Your task to perform on an android device: Open display settings Image 0: 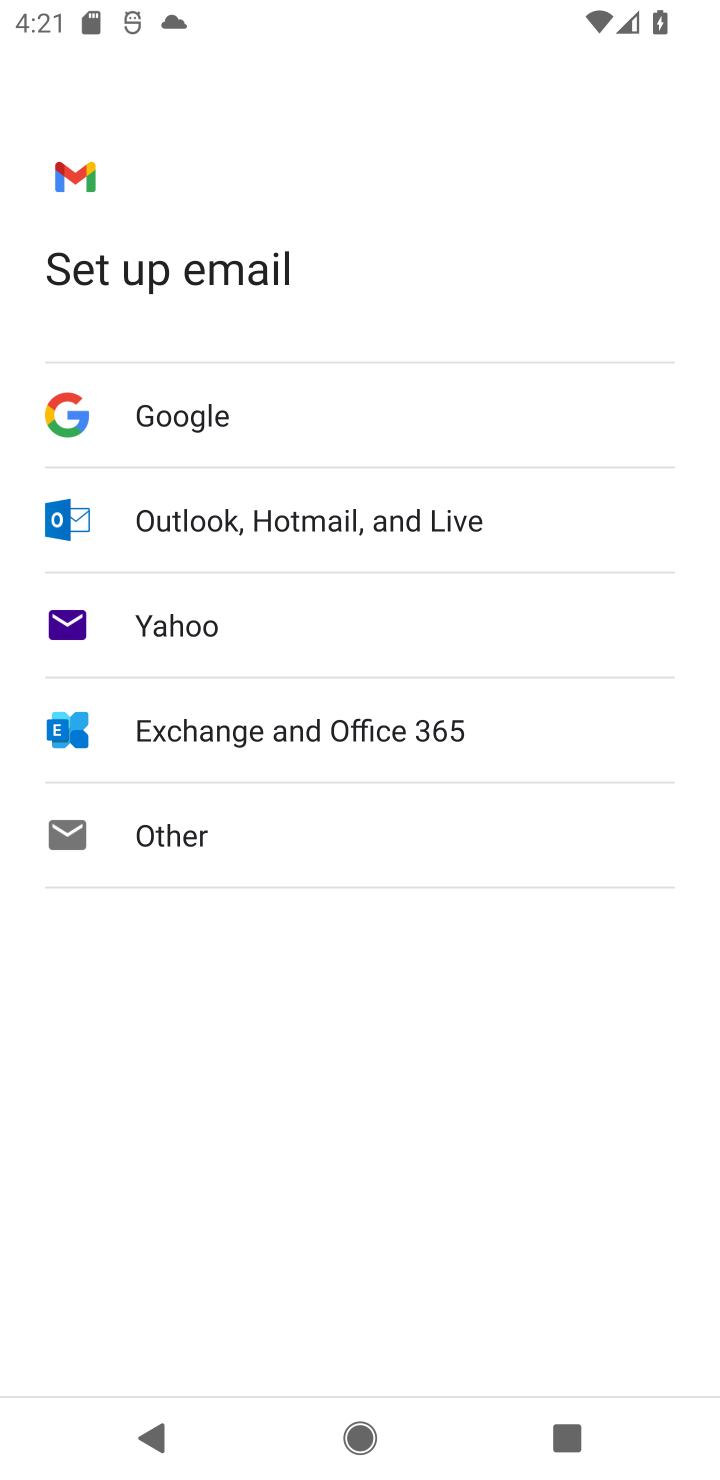
Step 0: press back button
Your task to perform on an android device: Open display settings Image 1: 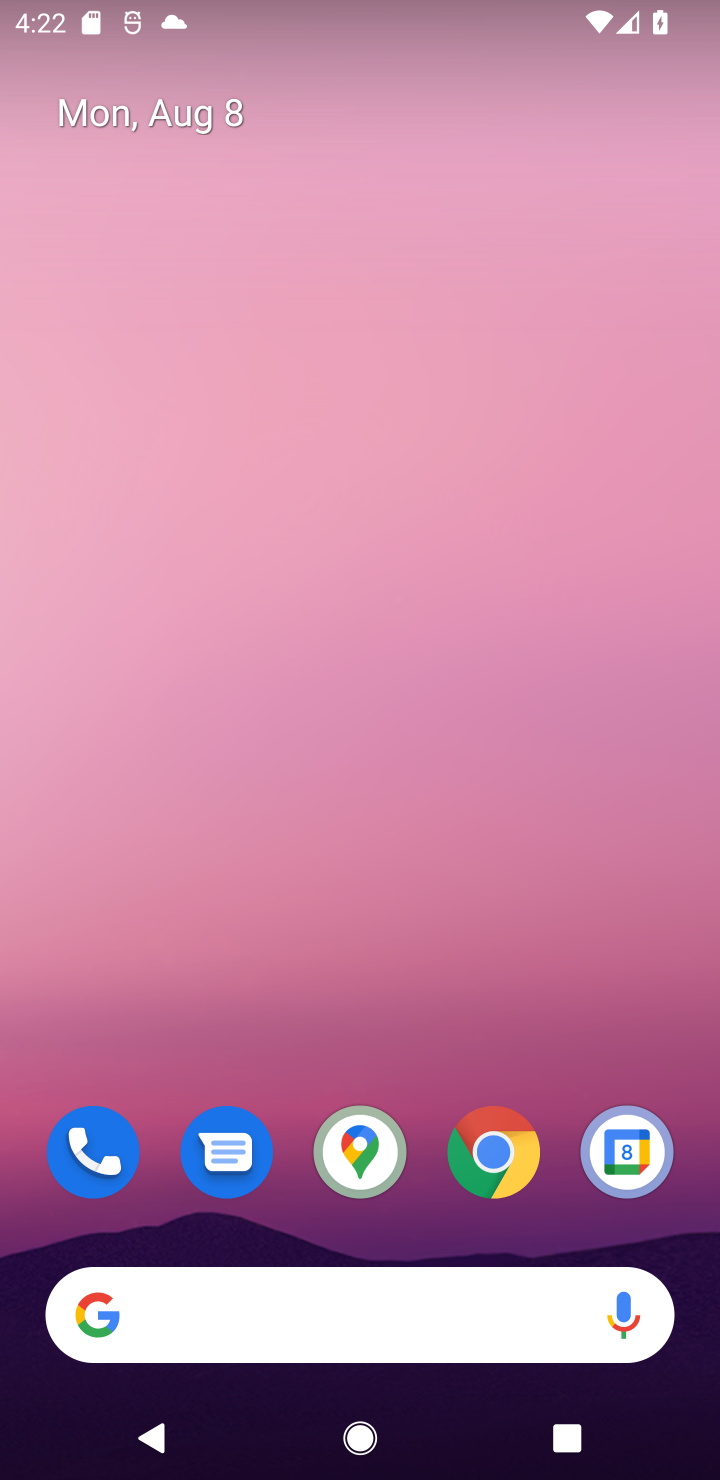
Step 1: drag from (423, 1241) to (461, 69)
Your task to perform on an android device: Open display settings Image 2: 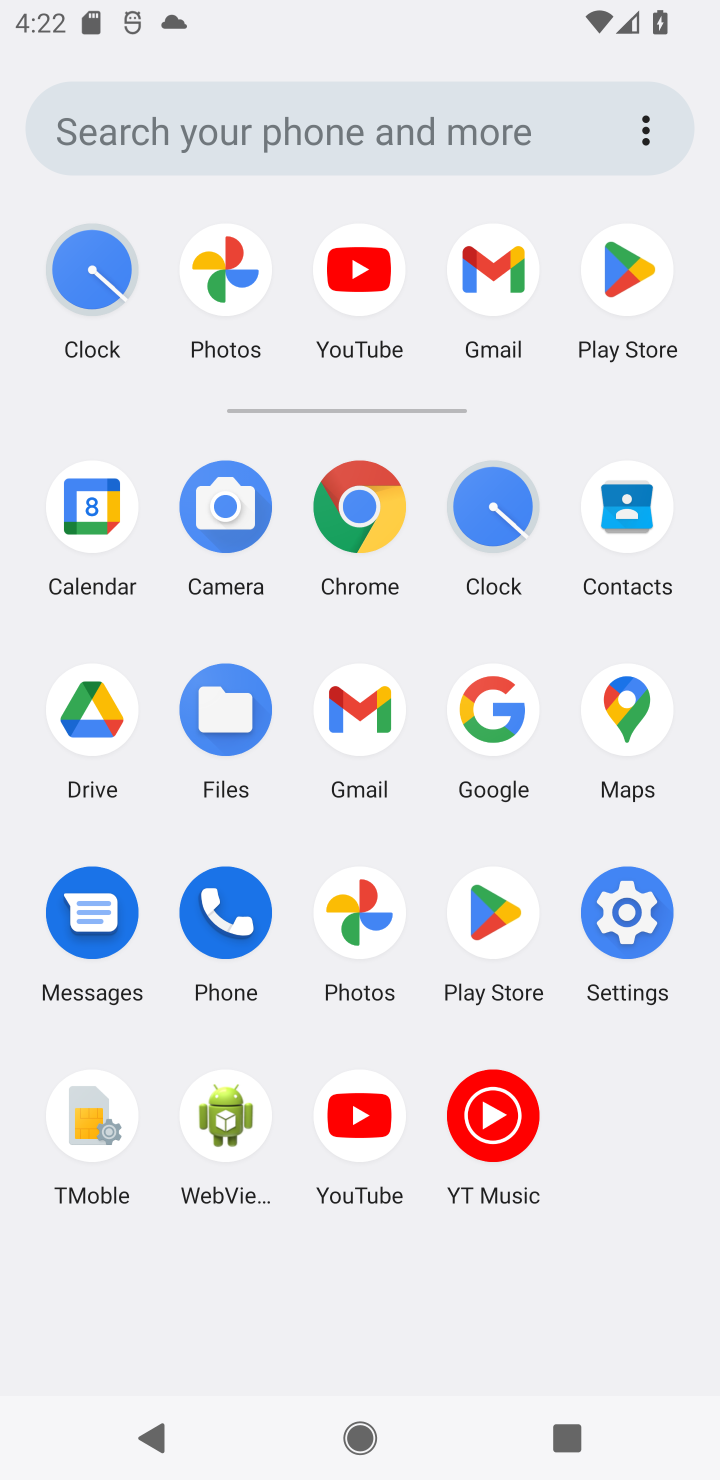
Step 2: click (645, 930)
Your task to perform on an android device: Open display settings Image 3: 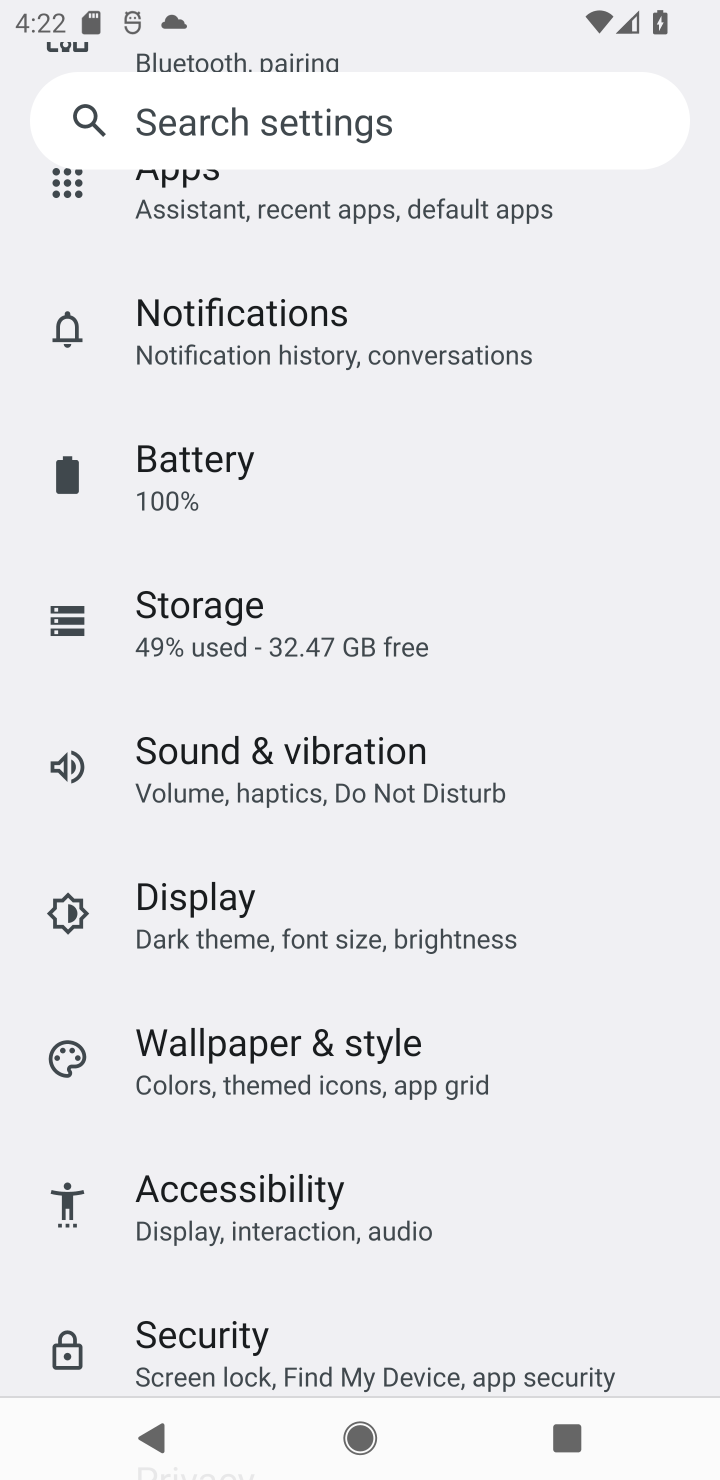
Step 3: click (308, 938)
Your task to perform on an android device: Open display settings Image 4: 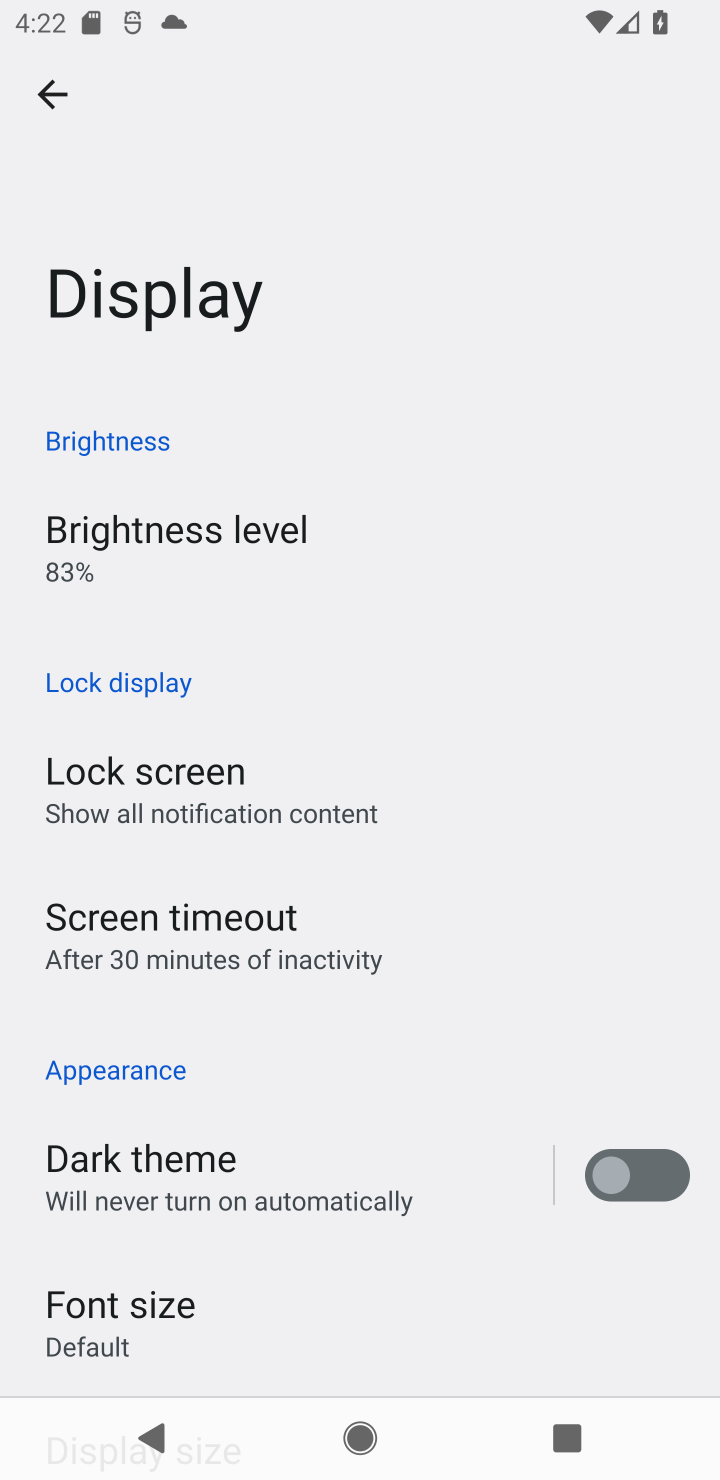
Step 4: task complete